Your task to perform on an android device: toggle javascript in the chrome app Image 0: 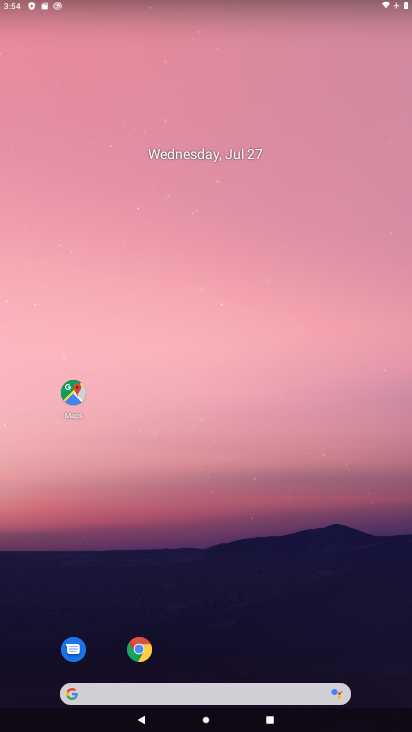
Step 0: click (136, 653)
Your task to perform on an android device: toggle javascript in the chrome app Image 1: 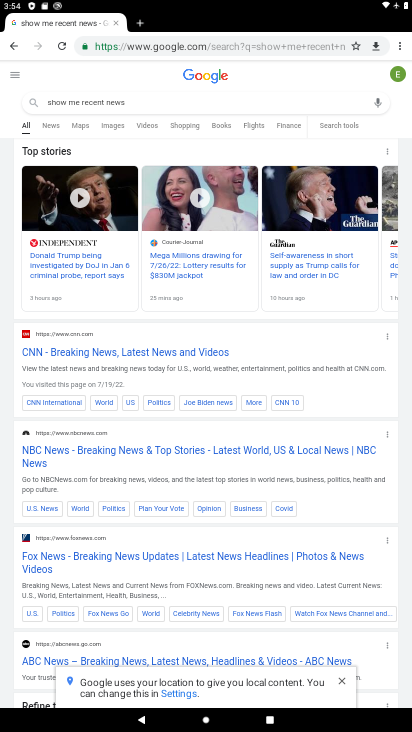
Step 1: click (405, 44)
Your task to perform on an android device: toggle javascript in the chrome app Image 2: 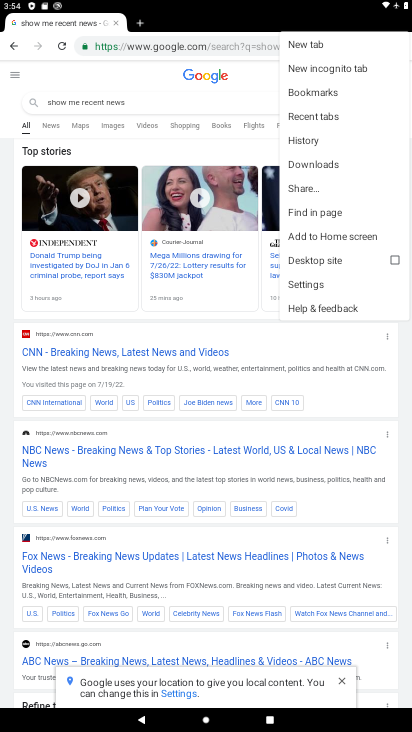
Step 2: click (309, 288)
Your task to perform on an android device: toggle javascript in the chrome app Image 3: 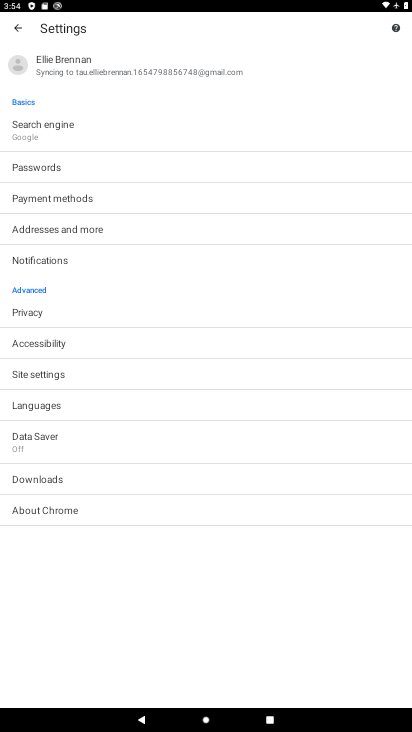
Step 3: click (69, 380)
Your task to perform on an android device: toggle javascript in the chrome app Image 4: 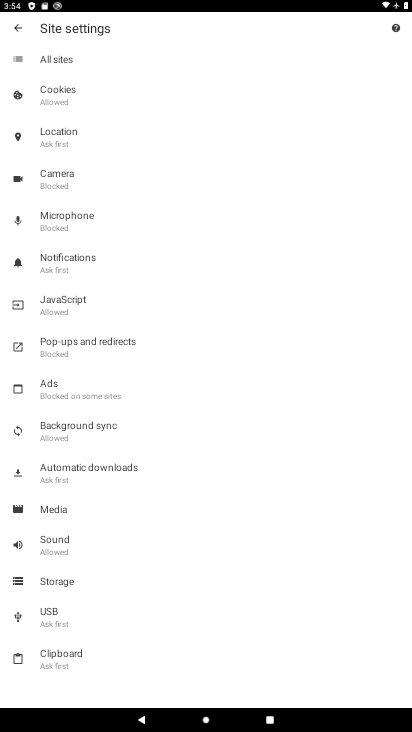
Step 4: click (98, 295)
Your task to perform on an android device: toggle javascript in the chrome app Image 5: 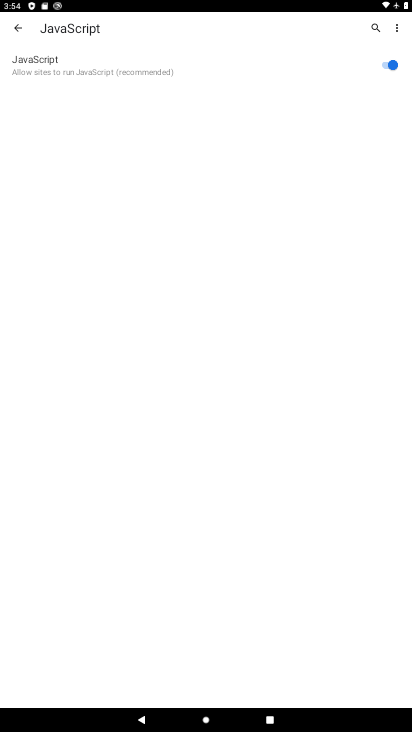
Step 5: click (385, 76)
Your task to perform on an android device: toggle javascript in the chrome app Image 6: 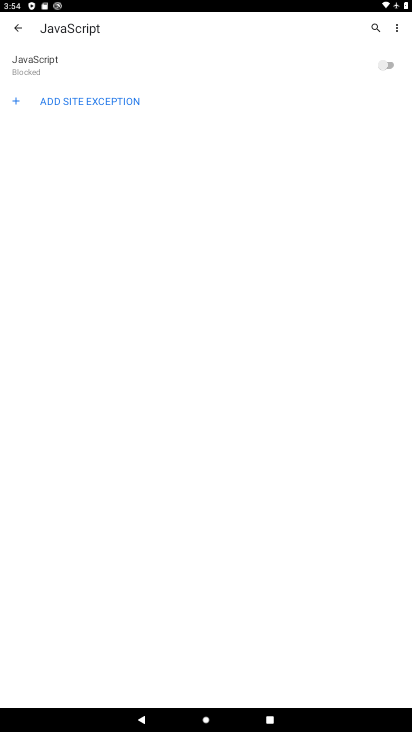
Step 6: task complete